Your task to perform on an android device: Go to network settings Image 0: 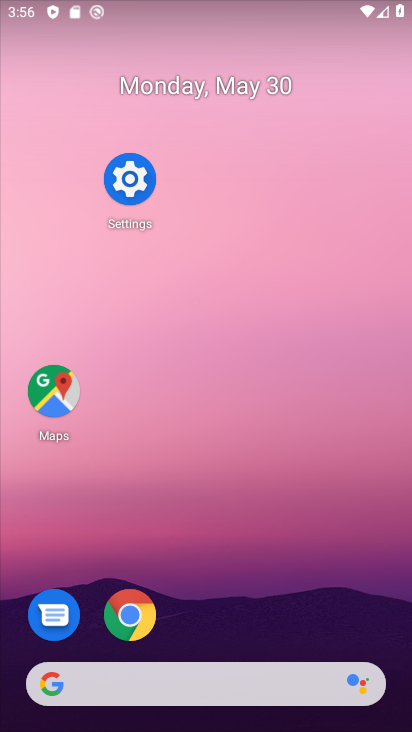
Step 0: drag from (215, 631) to (210, 56)
Your task to perform on an android device: Go to network settings Image 1: 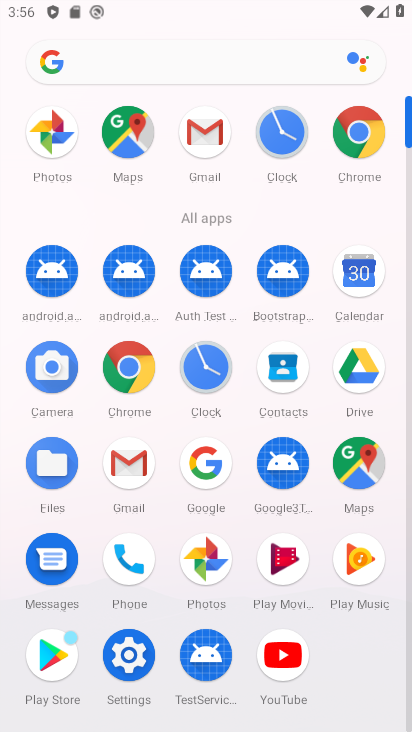
Step 1: click (126, 646)
Your task to perform on an android device: Go to network settings Image 2: 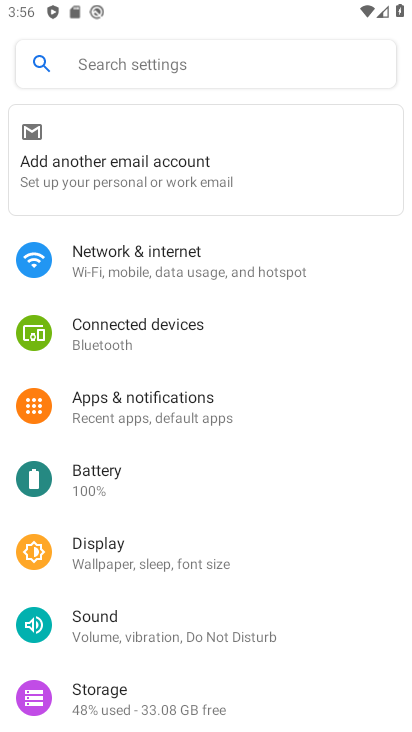
Step 2: click (155, 259)
Your task to perform on an android device: Go to network settings Image 3: 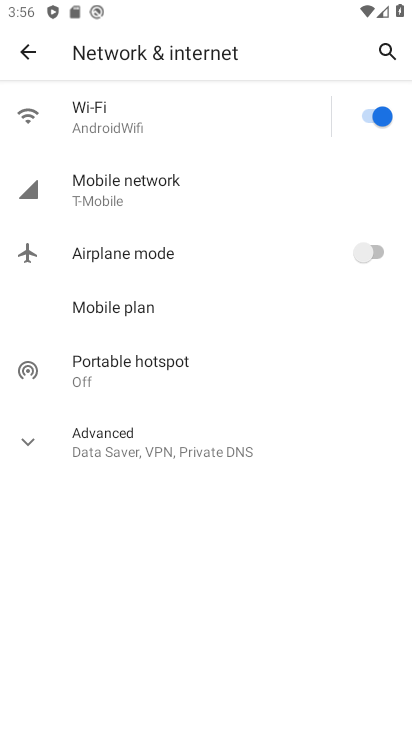
Step 3: click (149, 196)
Your task to perform on an android device: Go to network settings Image 4: 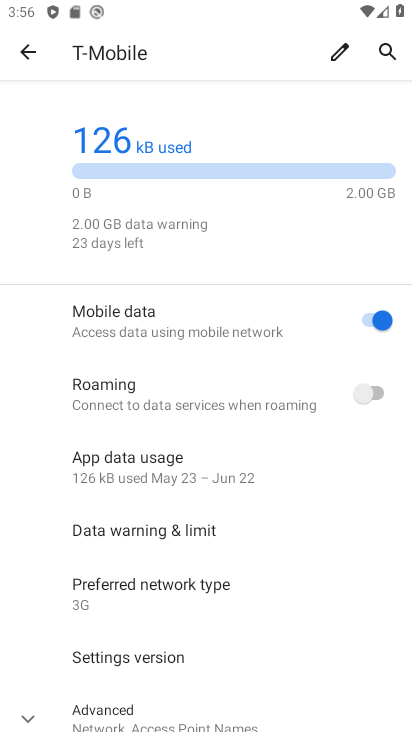
Step 4: task complete